Your task to perform on an android device: change the clock display to show seconds Image 0: 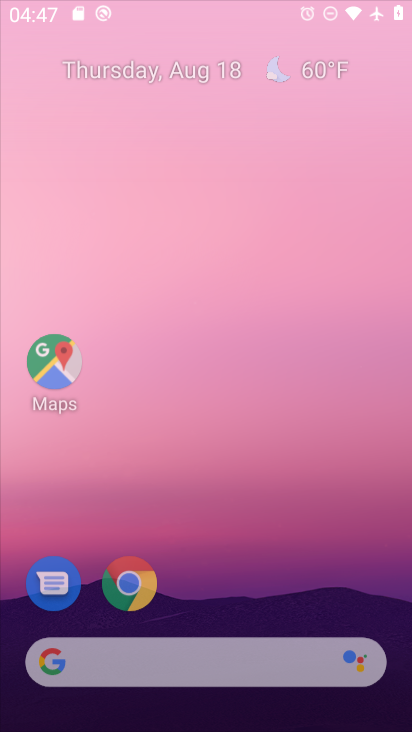
Step 0: press home button
Your task to perform on an android device: change the clock display to show seconds Image 1: 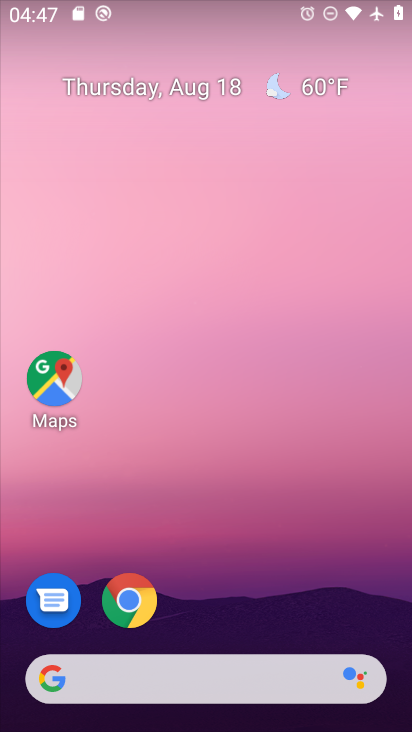
Step 1: drag from (238, 637) to (274, 173)
Your task to perform on an android device: change the clock display to show seconds Image 2: 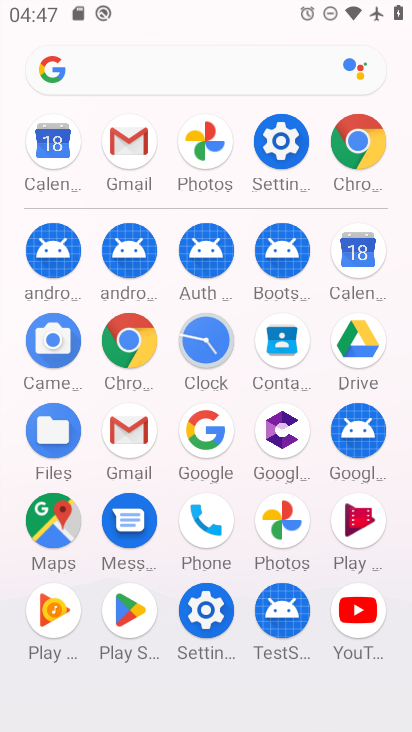
Step 2: click (211, 348)
Your task to perform on an android device: change the clock display to show seconds Image 3: 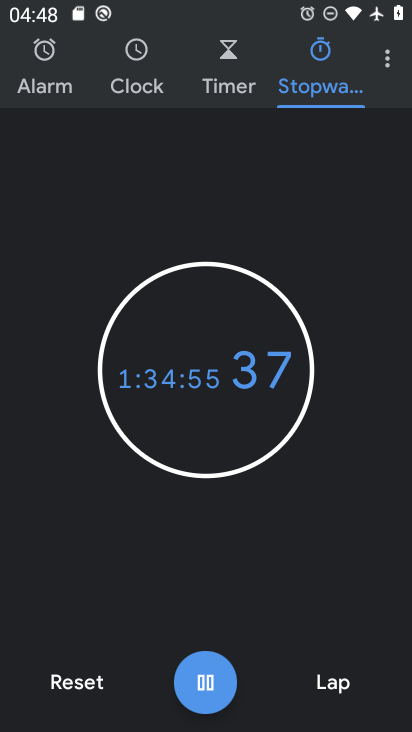
Step 3: click (386, 62)
Your task to perform on an android device: change the clock display to show seconds Image 4: 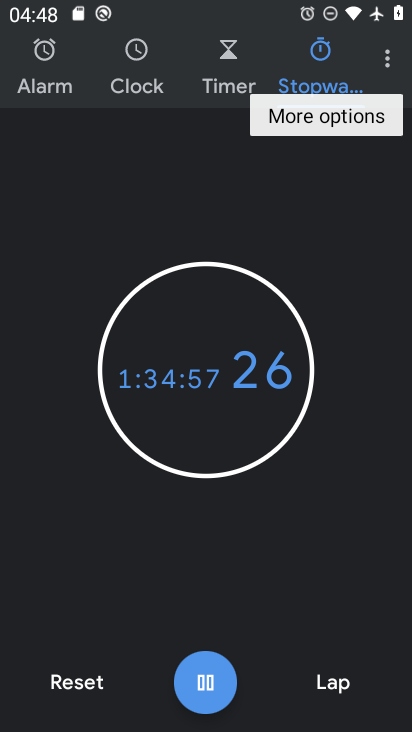
Step 4: click (386, 62)
Your task to perform on an android device: change the clock display to show seconds Image 5: 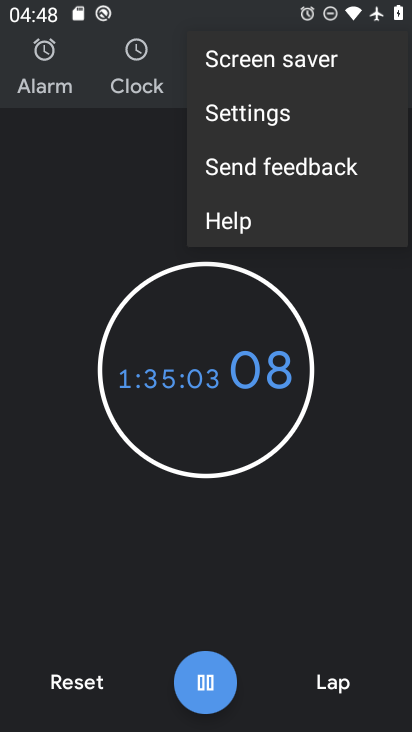
Step 5: click (215, 112)
Your task to perform on an android device: change the clock display to show seconds Image 6: 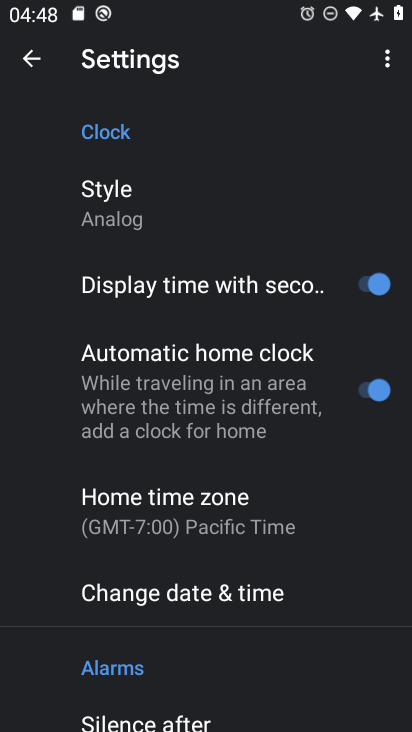
Step 6: task complete